Your task to perform on an android device: change your default location settings in chrome Image 0: 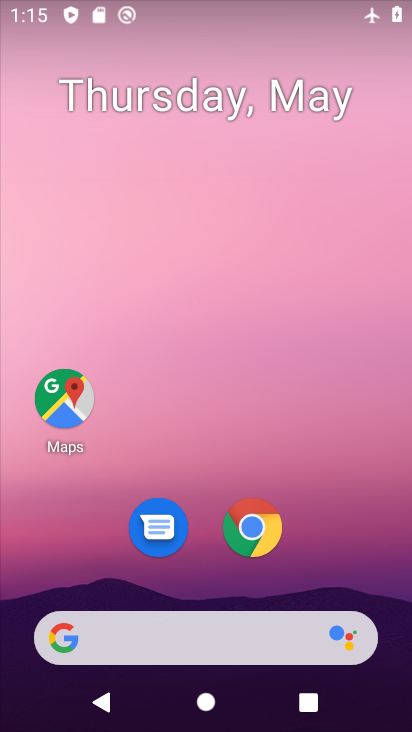
Step 0: click (301, 12)
Your task to perform on an android device: change your default location settings in chrome Image 1: 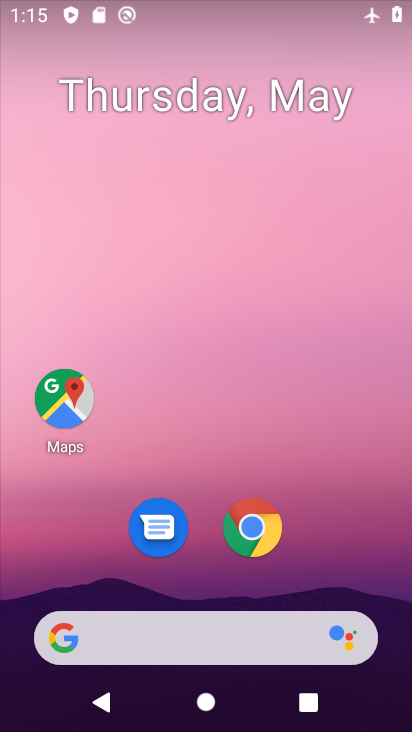
Step 1: click (265, 544)
Your task to perform on an android device: change your default location settings in chrome Image 2: 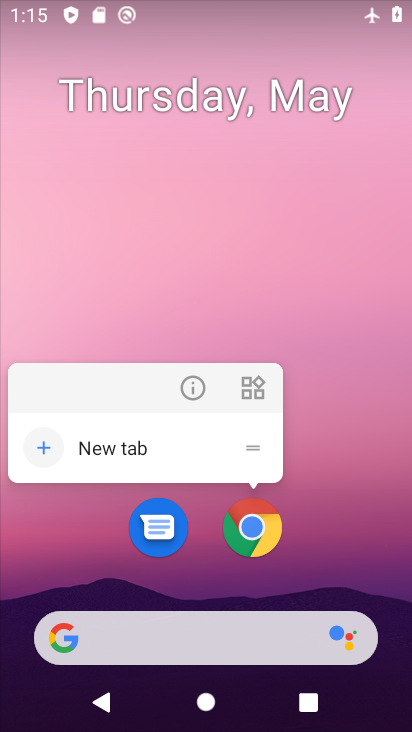
Step 2: click (190, 379)
Your task to perform on an android device: change your default location settings in chrome Image 3: 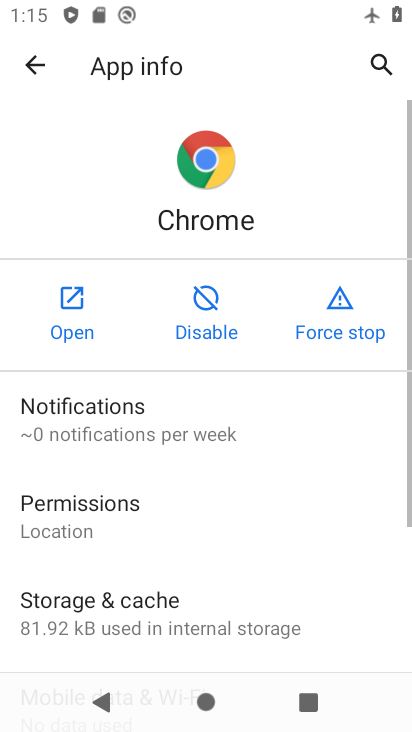
Step 3: click (73, 307)
Your task to perform on an android device: change your default location settings in chrome Image 4: 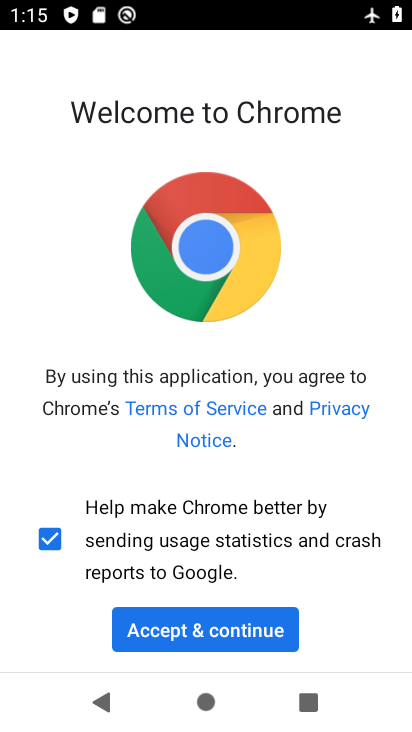
Step 4: click (214, 622)
Your task to perform on an android device: change your default location settings in chrome Image 5: 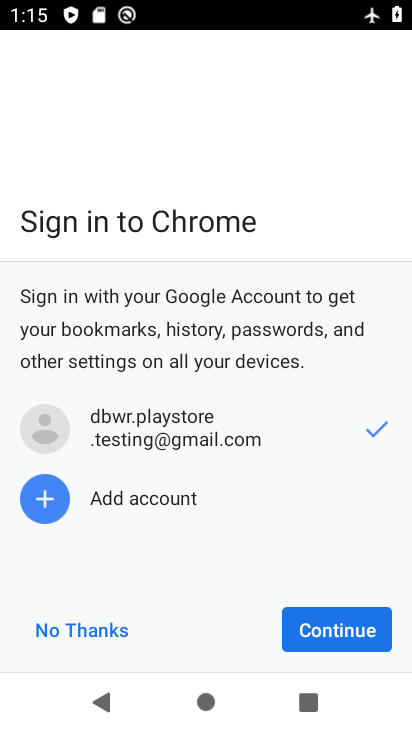
Step 5: click (337, 625)
Your task to perform on an android device: change your default location settings in chrome Image 6: 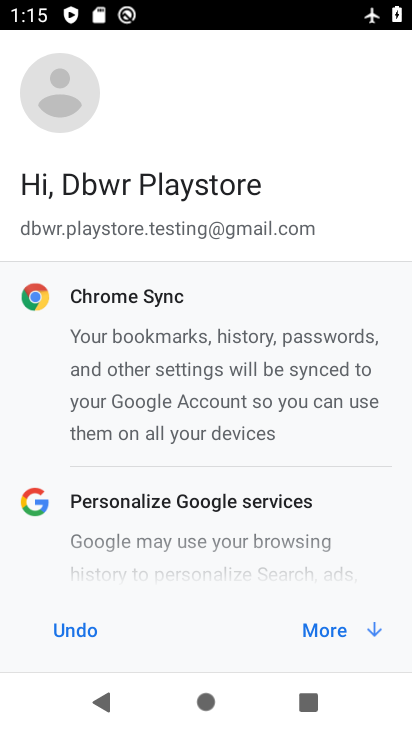
Step 6: click (337, 622)
Your task to perform on an android device: change your default location settings in chrome Image 7: 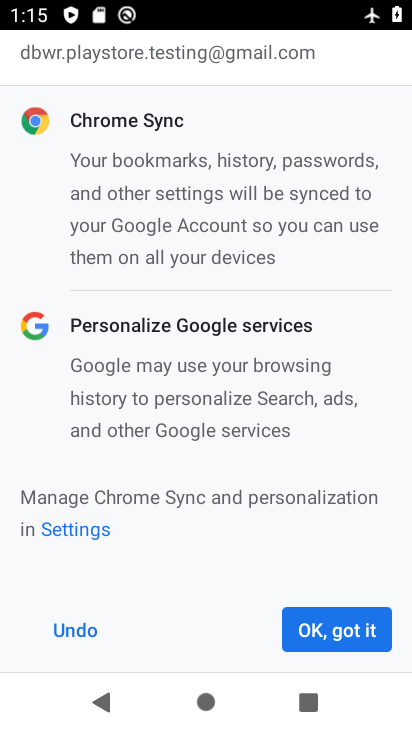
Step 7: click (350, 641)
Your task to perform on an android device: change your default location settings in chrome Image 8: 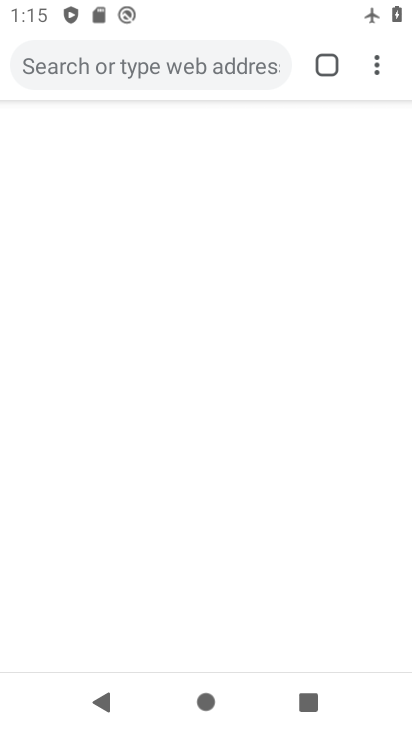
Step 8: click (337, 624)
Your task to perform on an android device: change your default location settings in chrome Image 9: 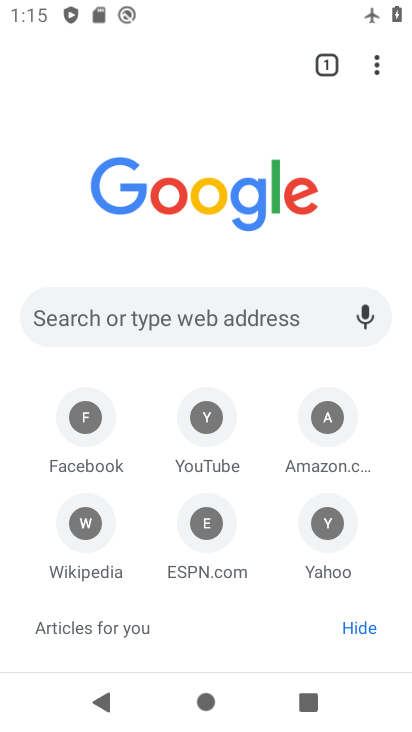
Step 9: drag from (190, 559) to (195, 81)
Your task to perform on an android device: change your default location settings in chrome Image 10: 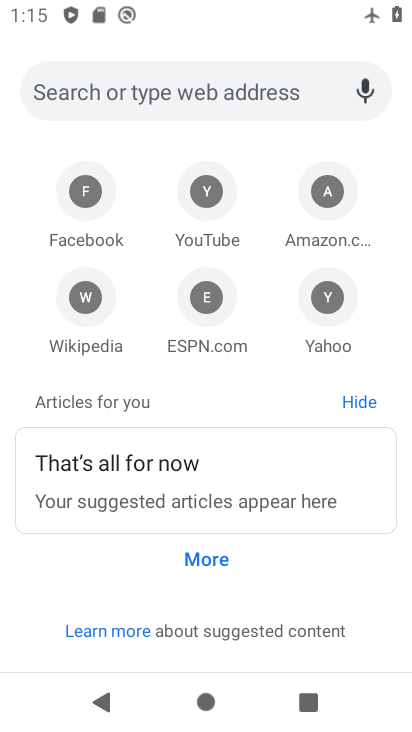
Step 10: drag from (236, 190) to (314, 728)
Your task to perform on an android device: change your default location settings in chrome Image 11: 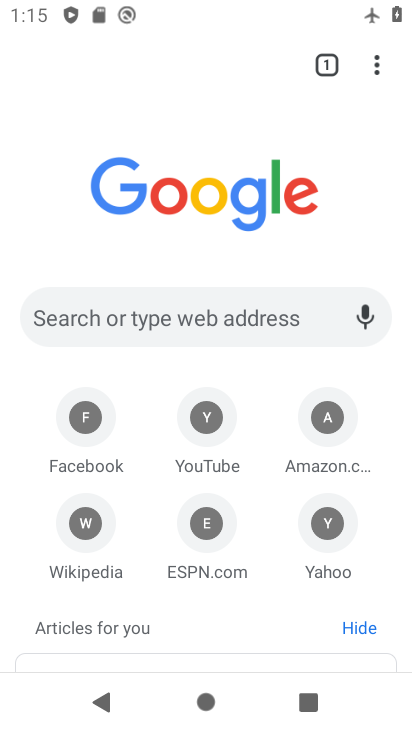
Step 11: click (379, 60)
Your task to perform on an android device: change your default location settings in chrome Image 12: 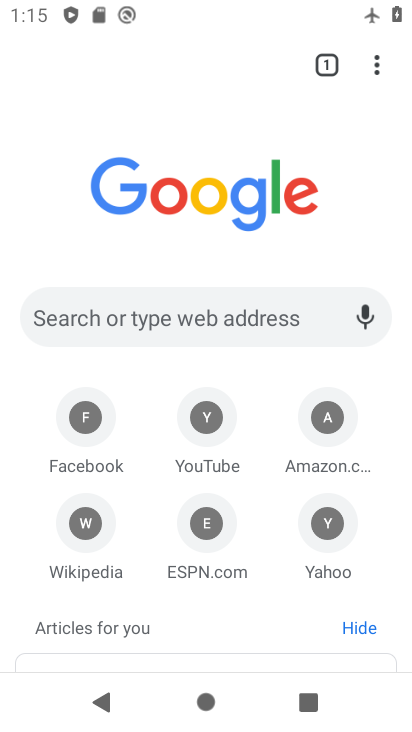
Step 12: click (384, 67)
Your task to perform on an android device: change your default location settings in chrome Image 13: 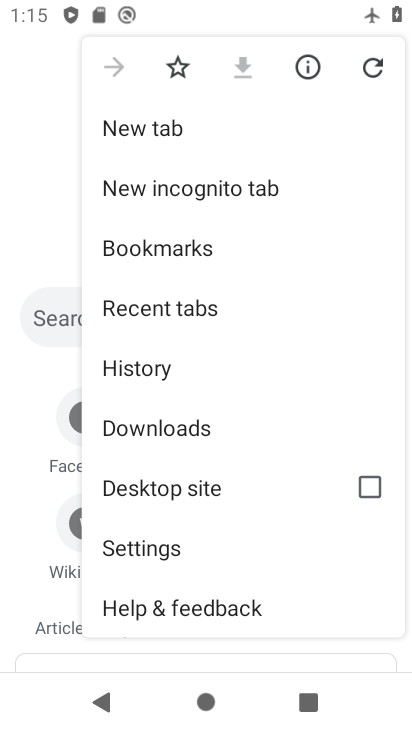
Step 13: click (144, 548)
Your task to perform on an android device: change your default location settings in chrome Image 14: 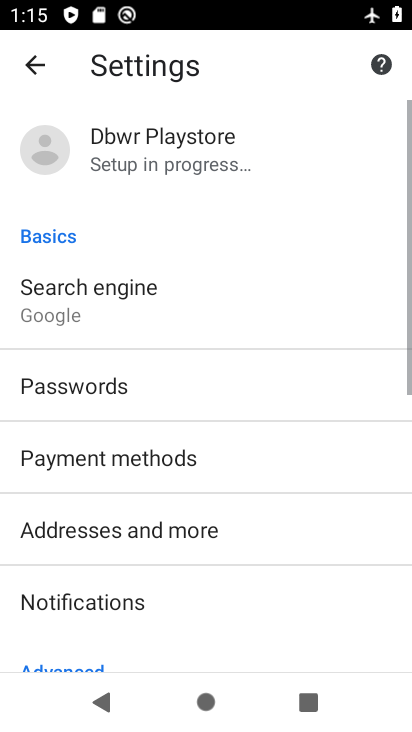
Step 14: drag from (194, 528) to (198, 57)
Your task to perform on an android device: change your default location settings in chrome Image 15: 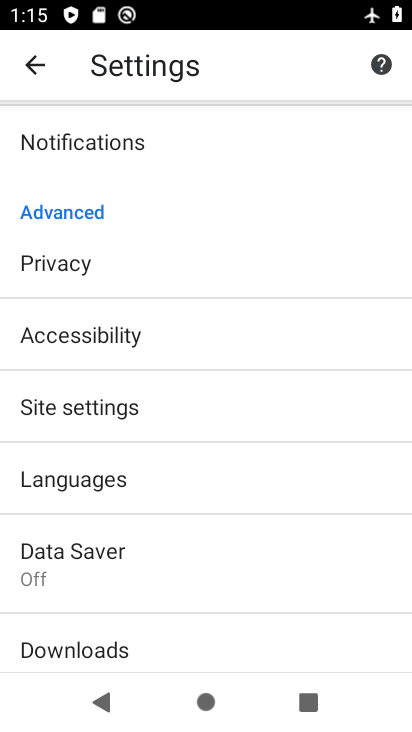
Step 15: click (102, 394)
Your task to perform on an android device: change your default location settings in chrome Image 16: 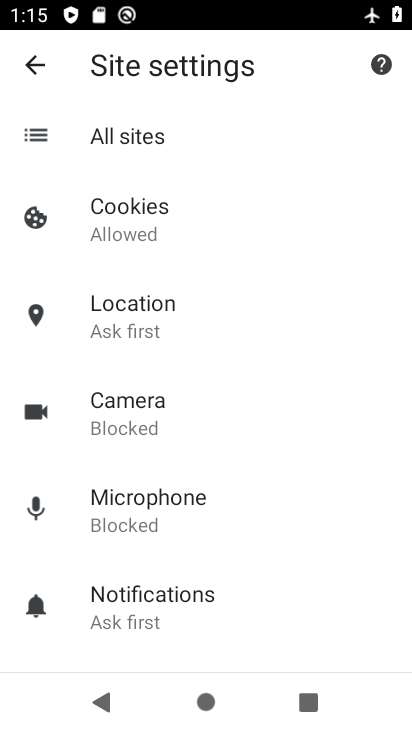
Step 16: click (150, 333)
Your task to perform on an android device: change your default location settings in chrome Image 17: 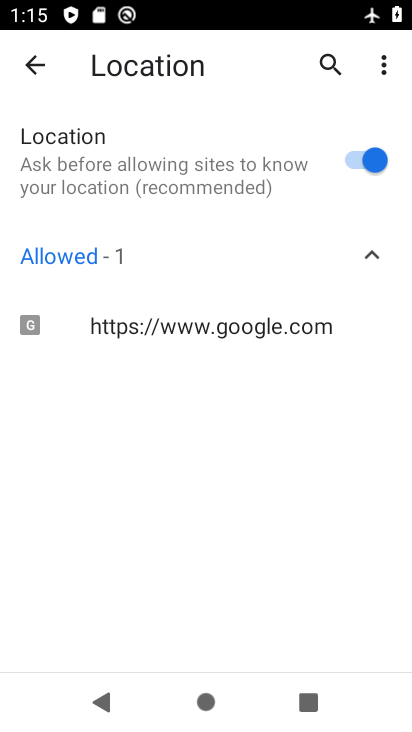
Step 17: click (345, 162)
Your task to perform on an android device: change your default location settings in chrome Image 18: 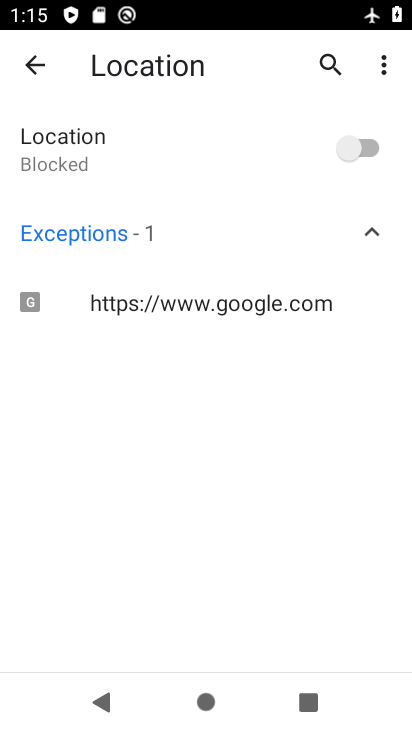
Step 18: task complete